Your task to perform on an android device: Open Google Maps Image 0: 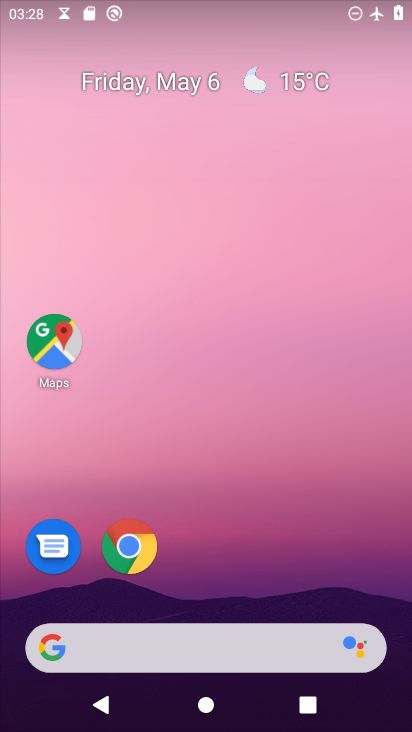
Step 0: click (46, 342)
Your task to perform on an android device: Open Google Maps Image 1: 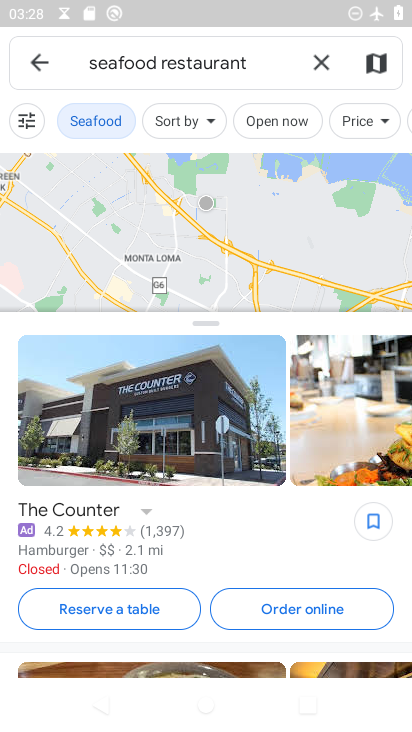
Step 1: task complete